Your task to perform on an android device: create a new album in the google photos Image 0: 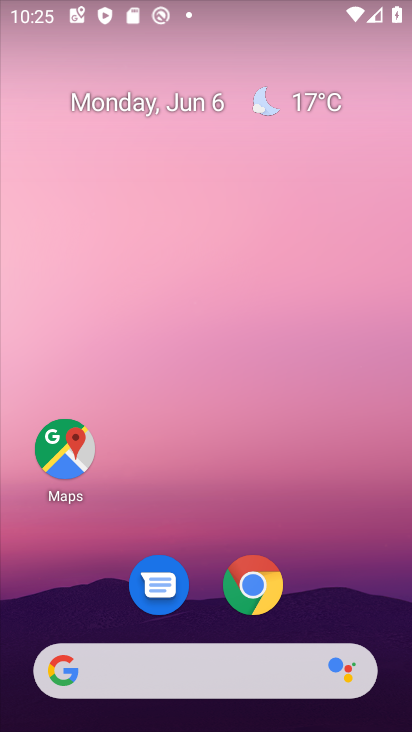
Step 0: drag from (229, 480) to (261, 2)
Your task to perform on an android device: create a new album in the google photos Image 1: 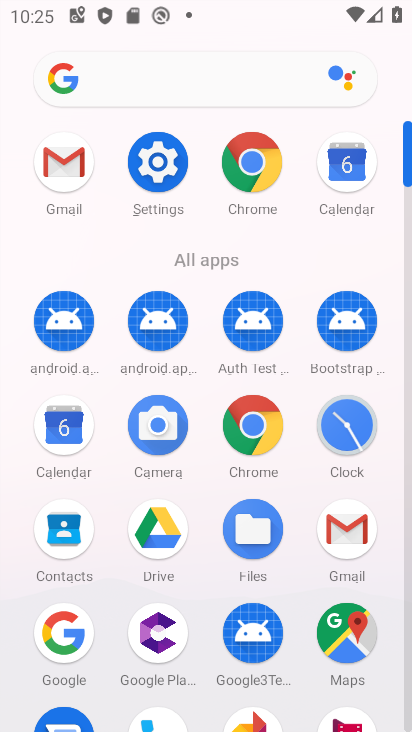
Step 1: drag from (300, 558) to (297, 299)
Your task to perform on an android device: create a new album in the google photos Image 2: 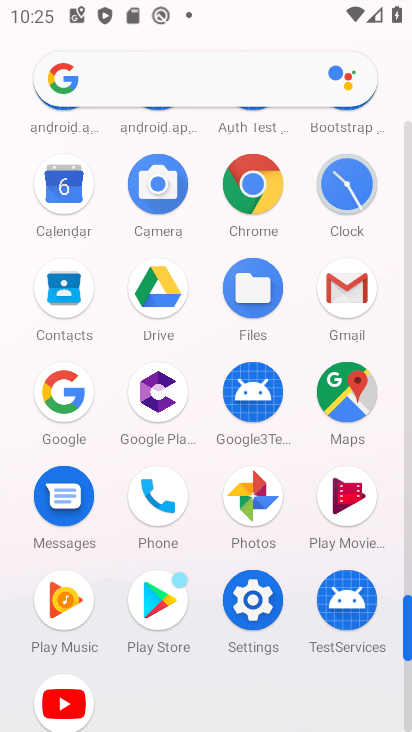
Step 2: click (263, 482)
Your task to perform on an android device: create a new album in the google photos Image 3: 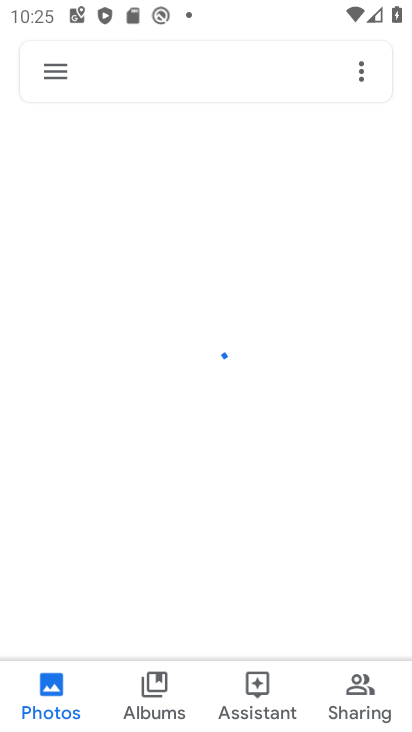
Step 3: click (158, 700)
Your task to perform on an android device: create a new album in the google photos Image 4: 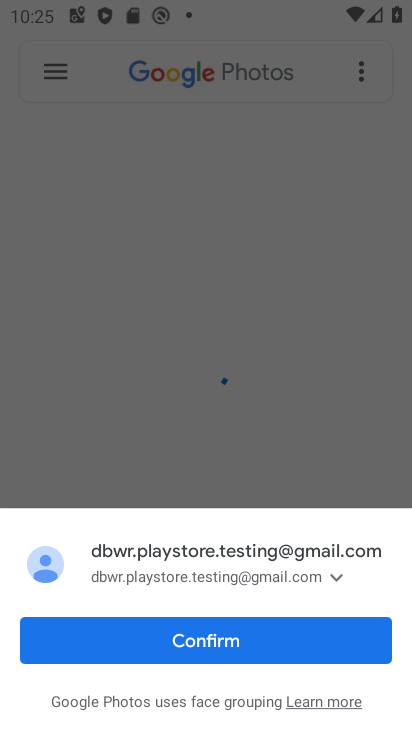
Step 4: click (203, 644)
Your task to perform on an android device: create a new album in the google photos Image 5: 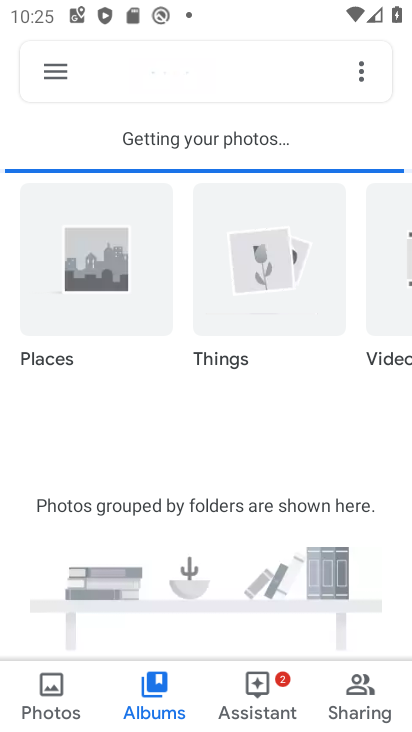
Step 5: click (152, 697)
Your task to perform on an android device: create a new album in the google photos Image 6: 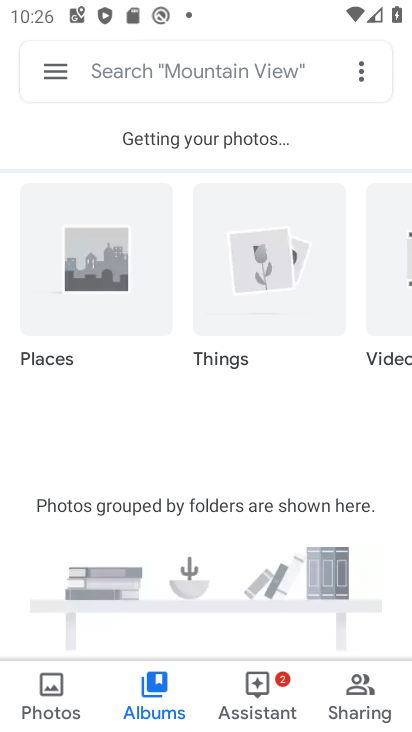
Step 6: click (356, 68)
Your task to perform on an android device: create a new album in the google photos Image 7: 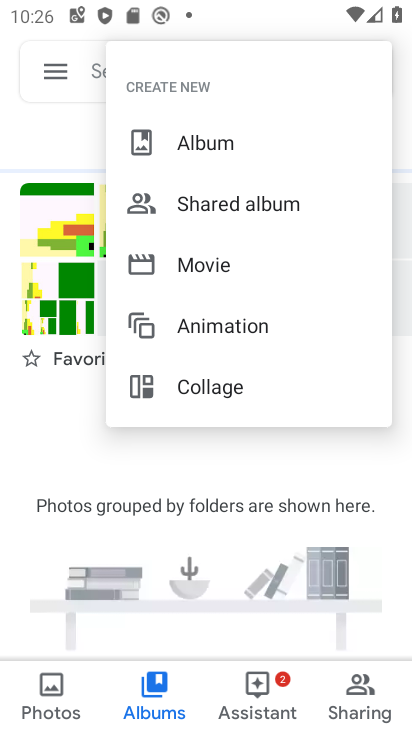
Step 7: click (250, 145)
Your task to perform on an android device: create a new album in the google photos Image 8: 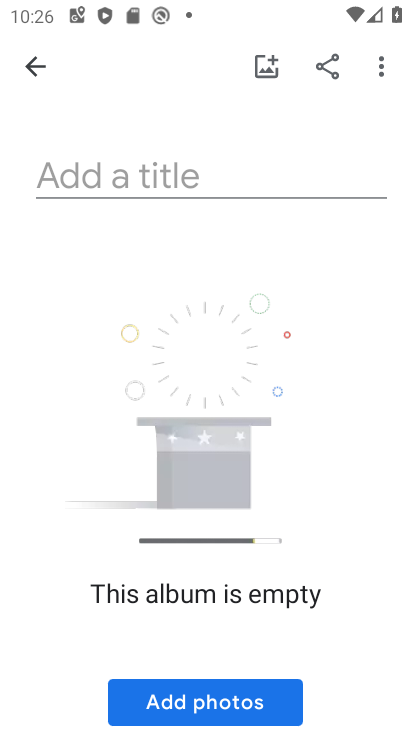
Step 8: click (255, 161)
Your task to perform on an android device: create a new album in the google photos Image 9: 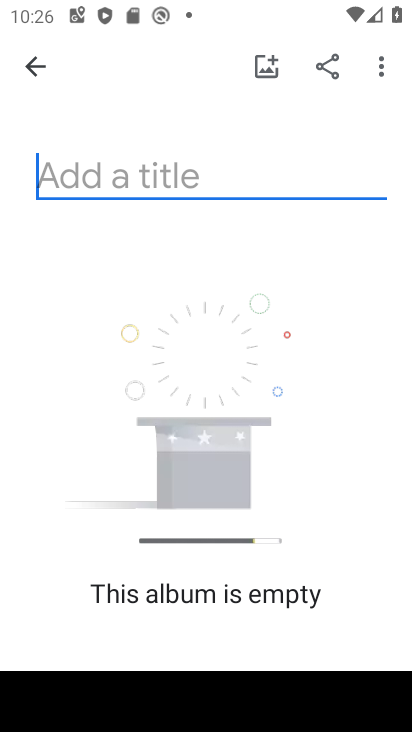
Step 9: type "Indraprasstha"
Your task to perform on an android device: create a new album in the google photos Image 10: 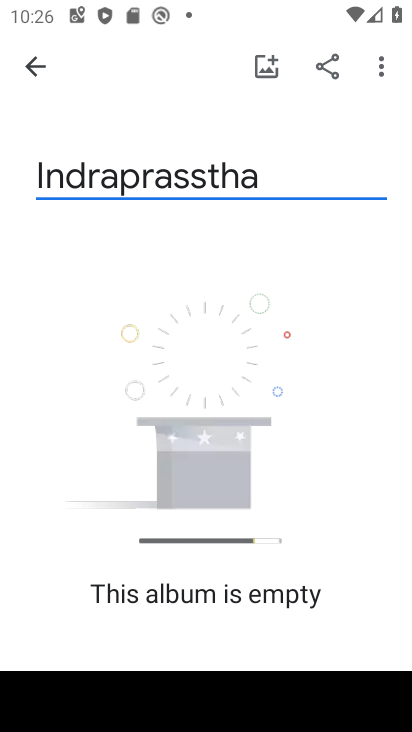
Step 10: drag from (209, 482) to (206, 259)
Your task to perform on an android device: create a new album in the google photos Image 11: 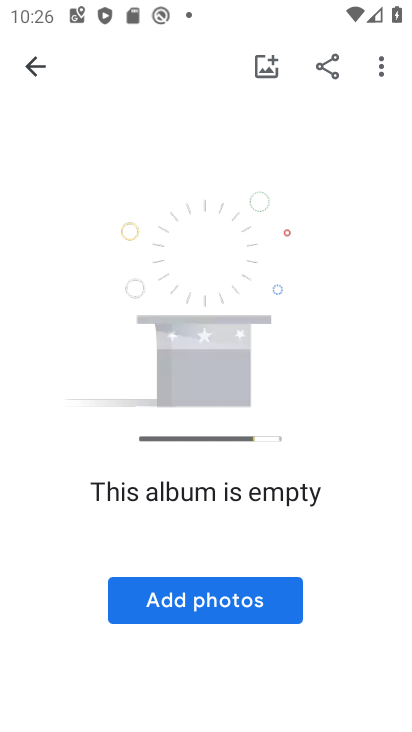
Step 11: click (207, 607)
Your task to perform on an android device: create a new album in the google photos Image 12: 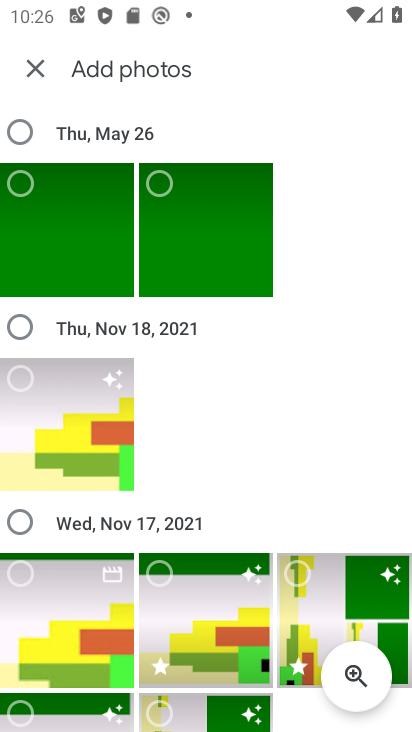
Step 12: click (22, 521)
Your task to perform on an android device: create a new album in the google photos Image 13: 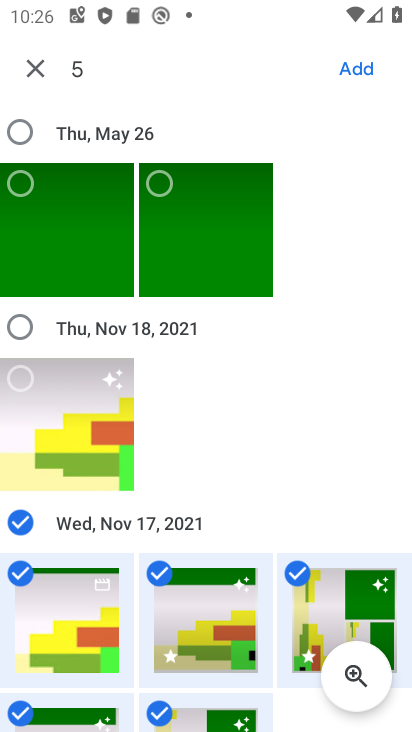
Step 13: click (368, 69)
Your task to perform on an android device: create a new album in the google photos Image 14: 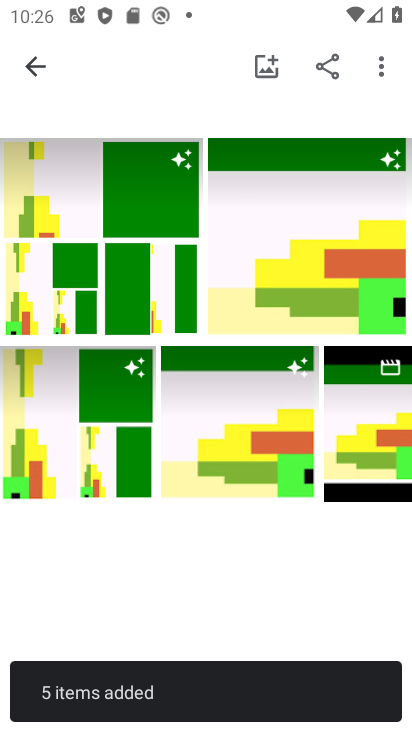
Step 14: task complete